Your task to perform on an android device: check out phone information Image 0: 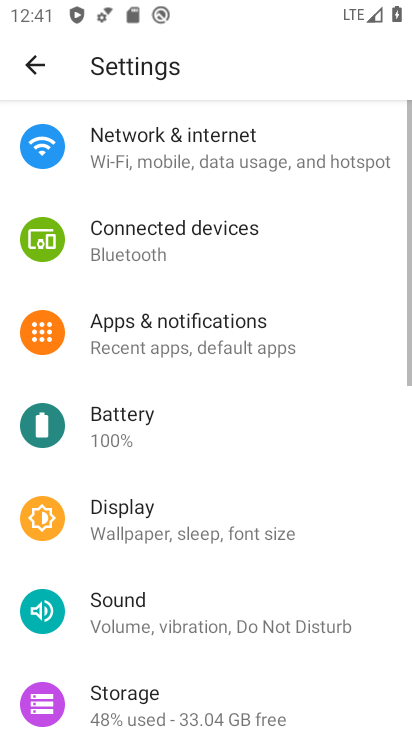
Step 0: press home button
Your task to perform on an android device: check out phone information Image 1: 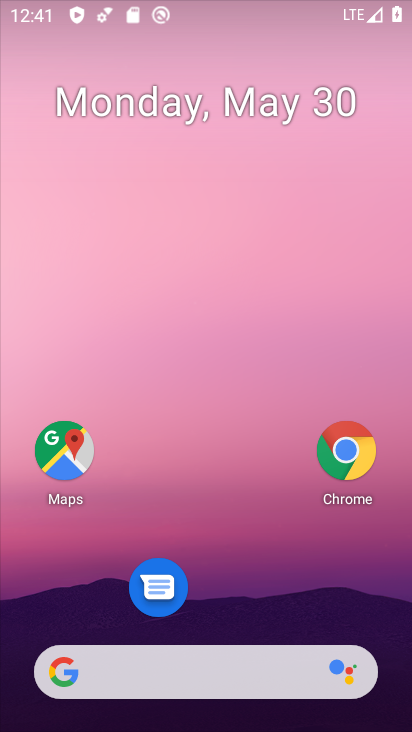
Step 1: drag from (253, 589) to (283, 78)
Your task to perform on an android device: check out phone information Image 2: 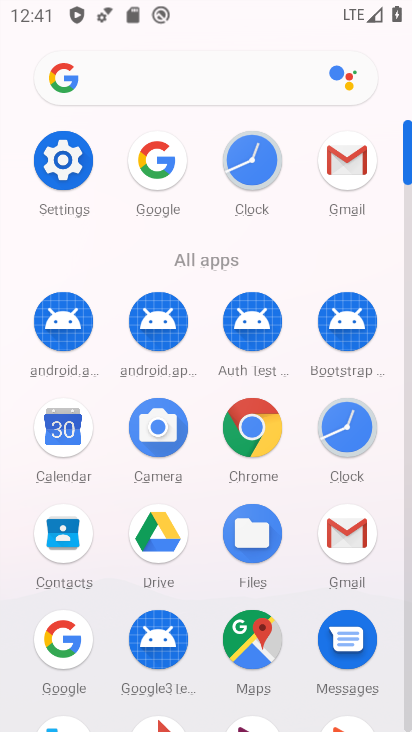
Step 2: click (72, 162)
Your task to perform on an android device: check out phone information Image 3: 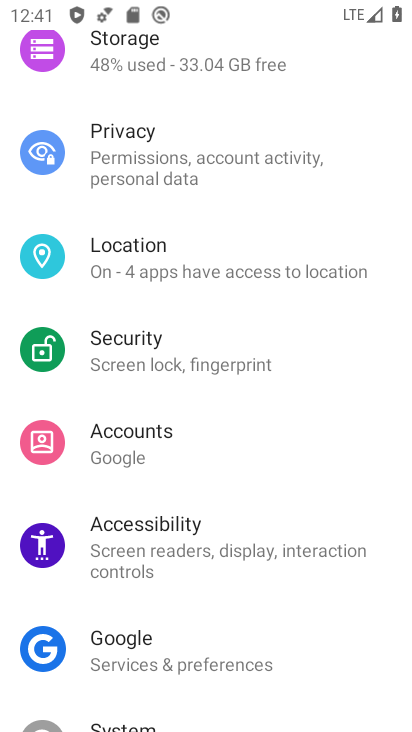
Step 3: drag from (248, 629) to (278, 84)
Your task to perform on an android device: check out phone information Image 4: 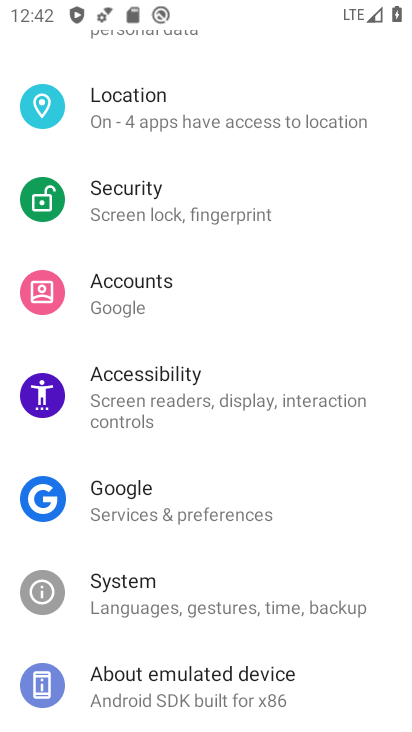
Step 4: click (168, 675)
Your task to perform on an android device: check out phone information Image 5: 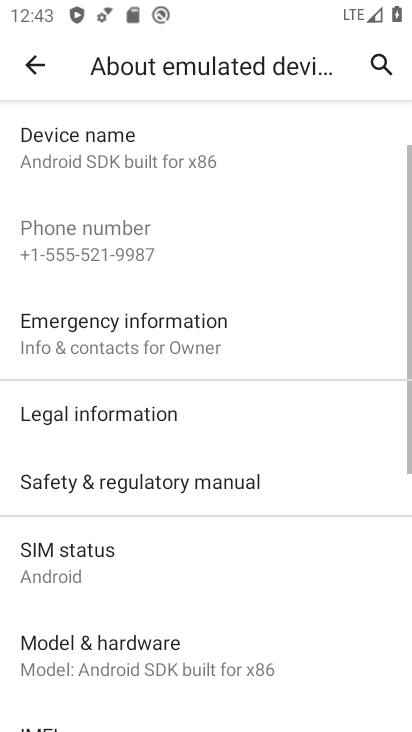
Step 5: task complete